Your task to perform on an android device: Open CNN.com Image 0: 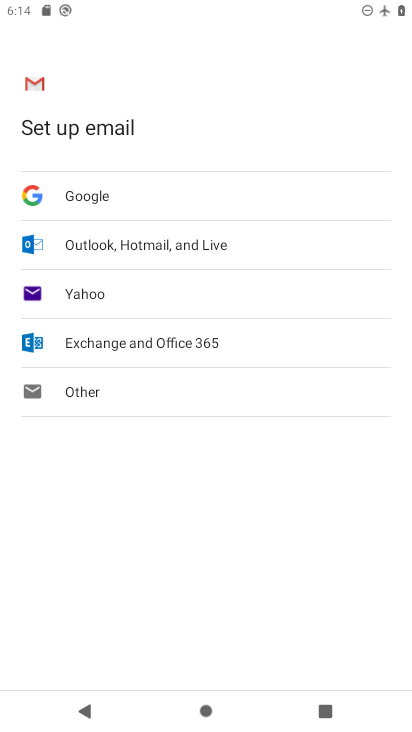
Step 0: press home button
Your task to perform on an android device: Open CNN.com Image 1: 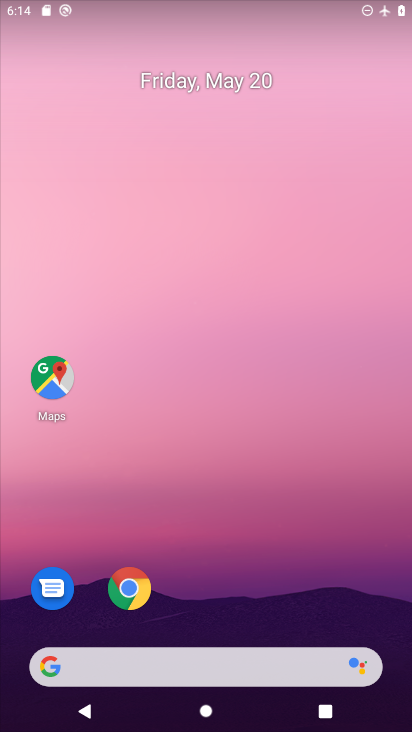
Step 1: click (35, 372)
Your task to perform on an android device: Open CNN.com Image 2: 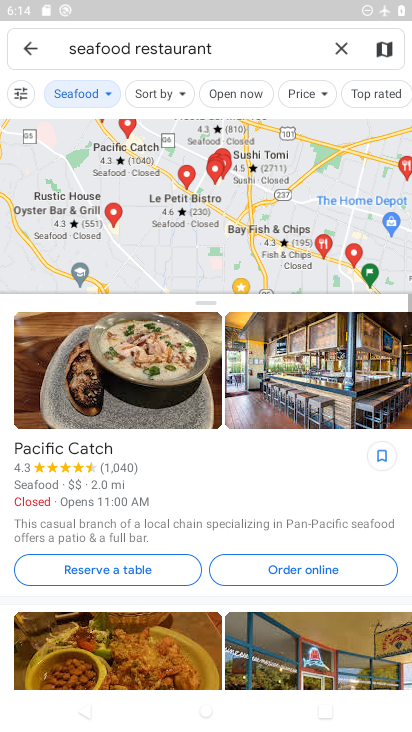
Step 2: task complete